Your task to perform on an android device: change the clock style Image 0: 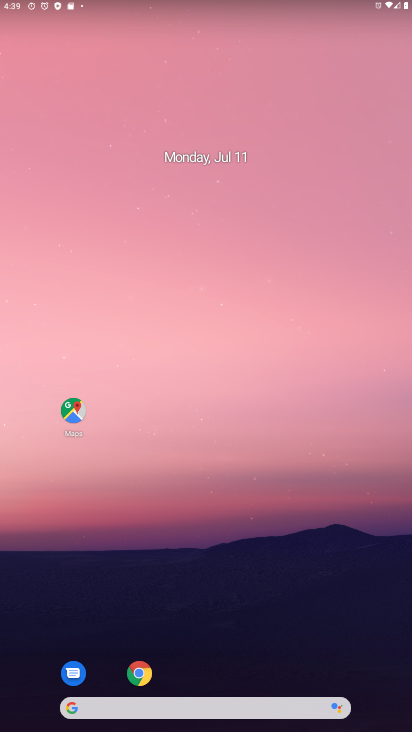
Step 0: drag from (217, 532) to (317, 50)
Your task to perform on an android device: change the clock style Image 1: 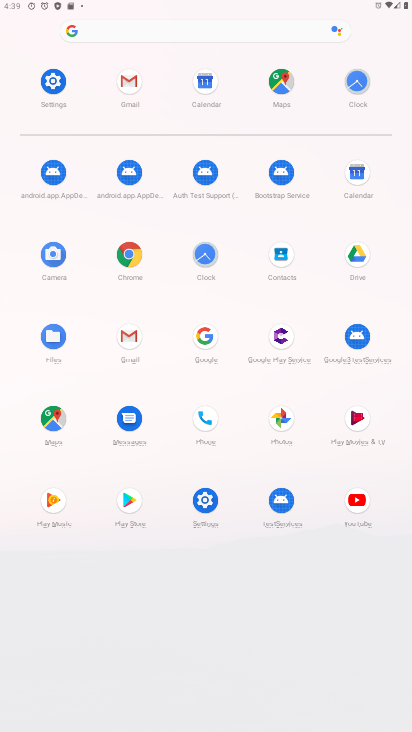
Step 1: click (207, 260)
Your task to perform on an android device: change the clock style Image 2: 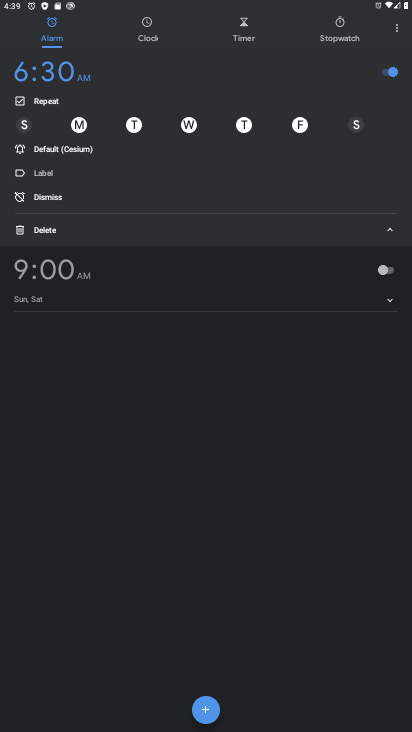
Step 2: click (393, 33)
Your task to perform on an android device: change the clock style Image 3: 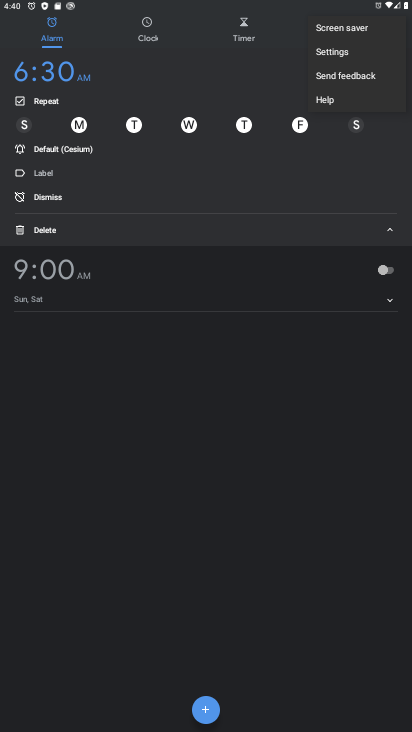
Step 3: click (343, 49)
Your task to perform on an android device: change the clock style Image 4: 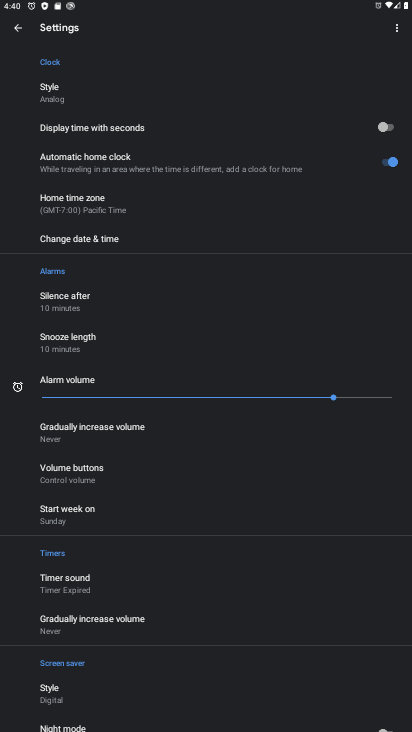
Step 4: click (60, 94)
Your task to perform on an android device: change the clock style Image 5: 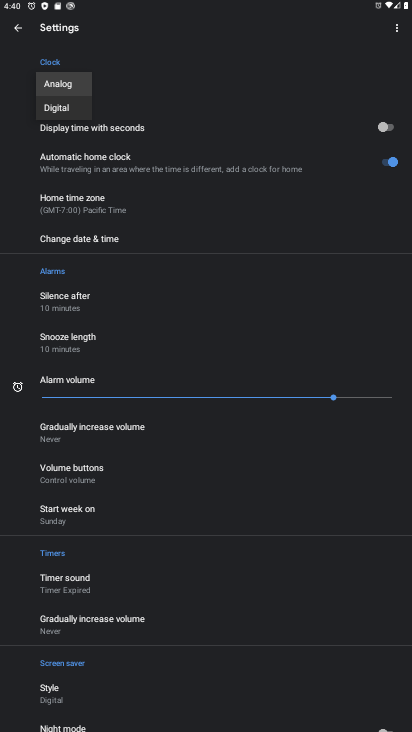
Step 5: click (80, 102)
Your task to perform on an android device: change the clock style Image 6: 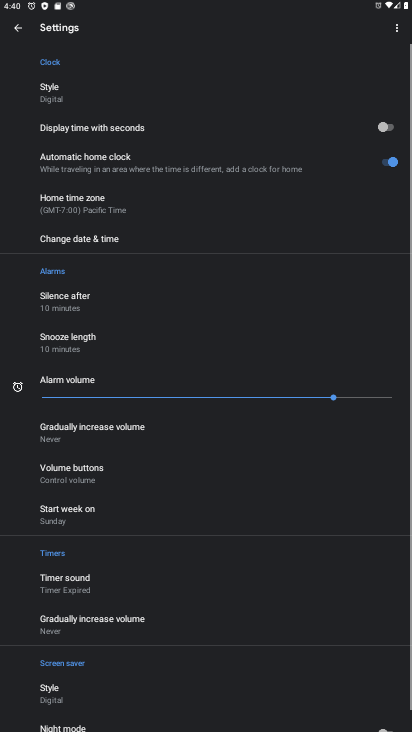
Step 6: task complete